Your task to perform on an android device: turn on javascript in the chrome app Image 0: 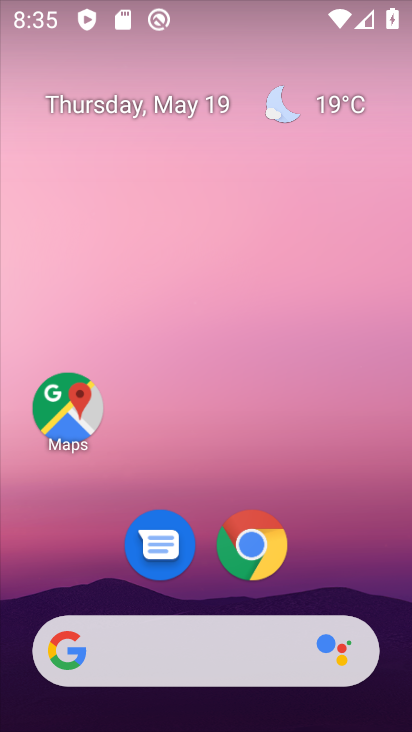
Step 0: click (269, 530)
Your task to perform on an android device: turn on javascript in the chrome app Image 1: 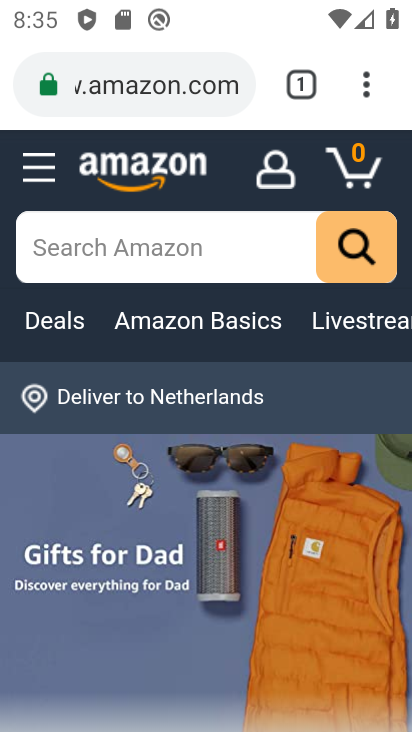
Step 1: click (365, 105)
Your task to perform on an android device: turn on javascript in the chrome app Image 2: 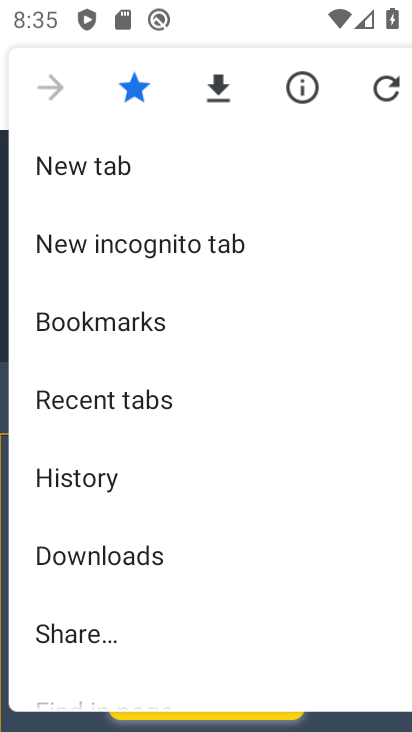
Step 2: drag from (158, 595) to (182, 381)
Your task to perform on an android device: turn on javascript in the chrome app Image 3: 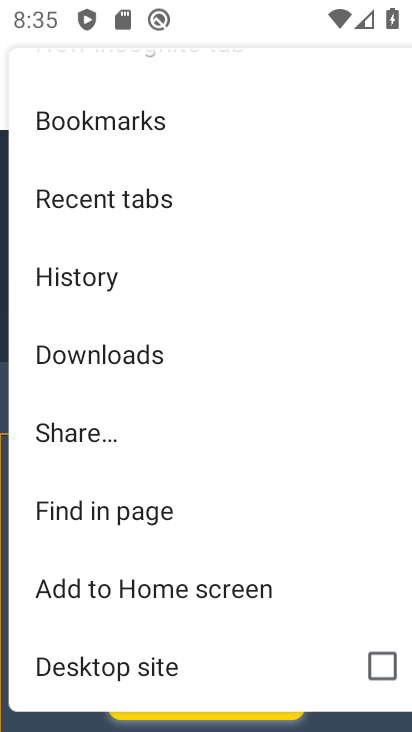
Step 3: drag from (142, 625) to (151, 391)
Your task to perform on an android device: turn on javascript in the chrome app Image 4: 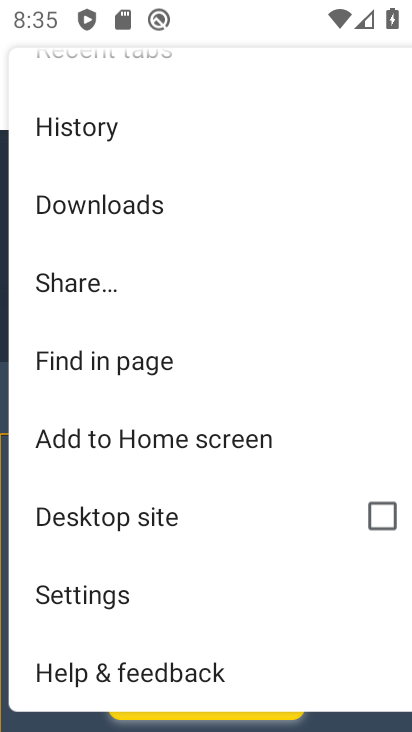
Step 4: click (126, 574)
Your task to perform on an android device: turn on javascript in the chrome app Image 5: 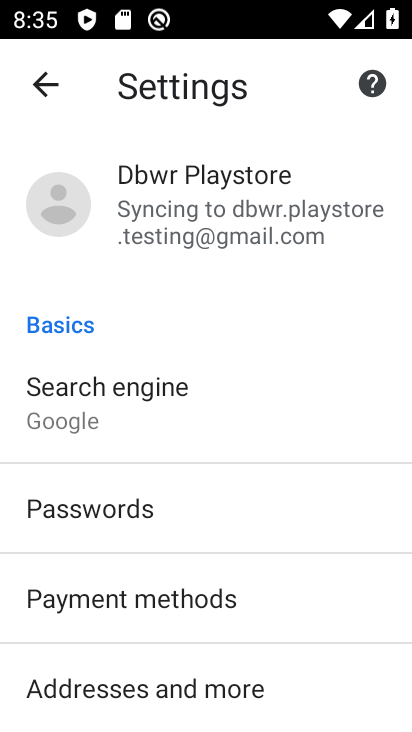
Step 5: drag from (126, 574) to (218, 238)
Your task to perform on an android device: turn on javascript in the chrome app Image 6: 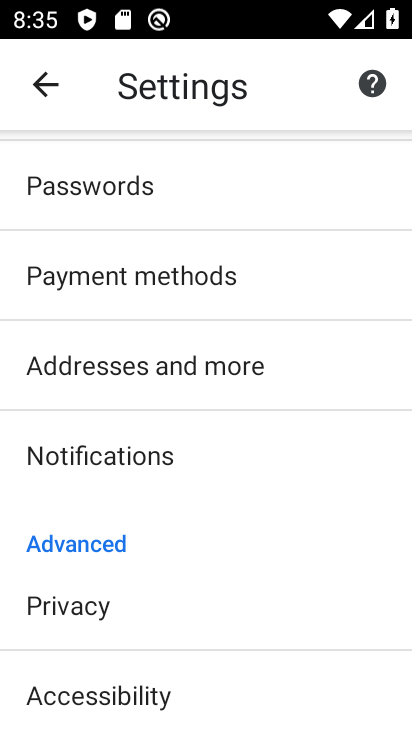
Step 6: drag from (196, 596) to (212, 332)
Your task to perform on an android device: turn on javascript in the chrome app Image 7: 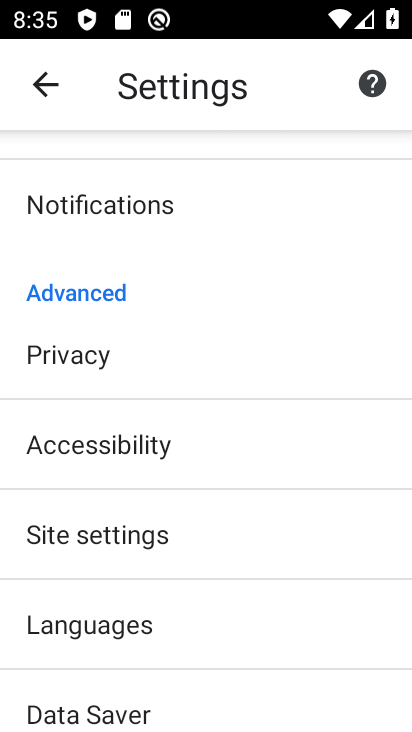
Step 7: click (210, 504)
Your task to perform on an android device: turn on javascript in the chrome app Image 8: 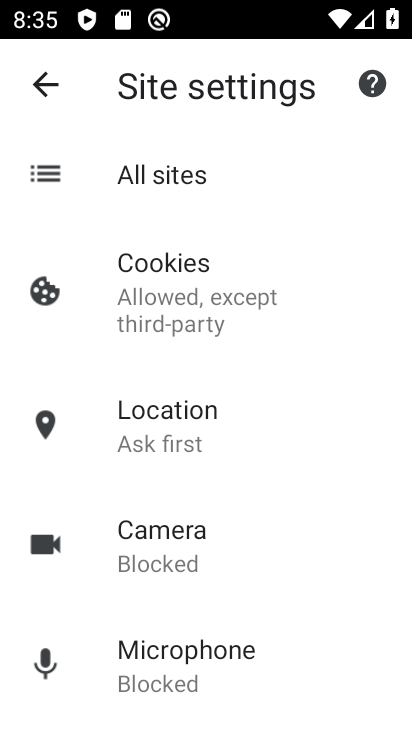
Step 8: drag from (254, 707) to (240, 426)
Your task to perform on an android device: turn on javascript in the chrome app Image 9: 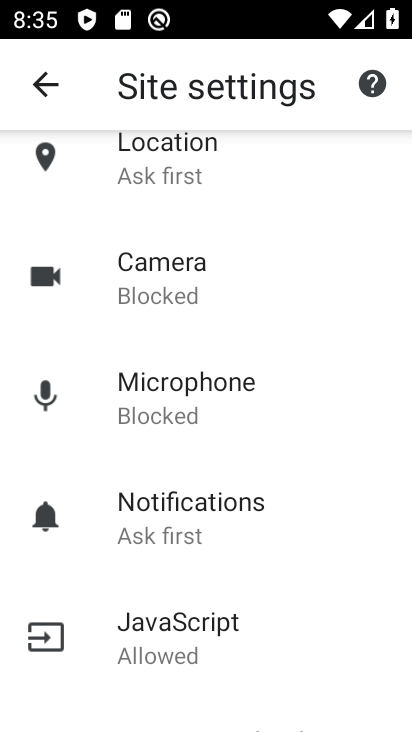
Step 9: click (227, 608)
Your task to perform on an android device: turn on javascript in the chrome app Image 10: 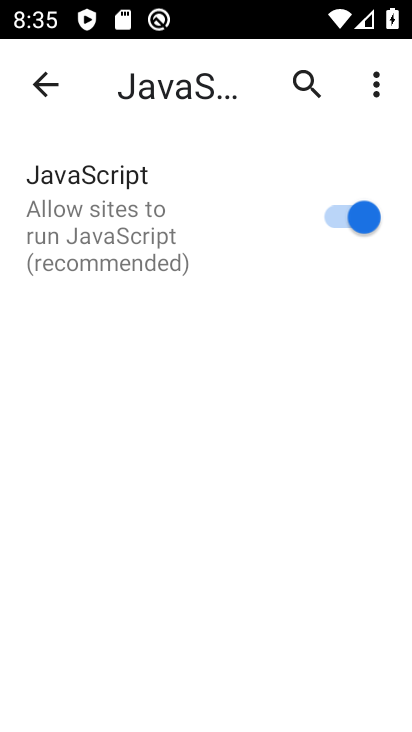
Step 10: click (357, 243)
Your task to perform on an android device: turn on javascript in the chrome app Image 11: 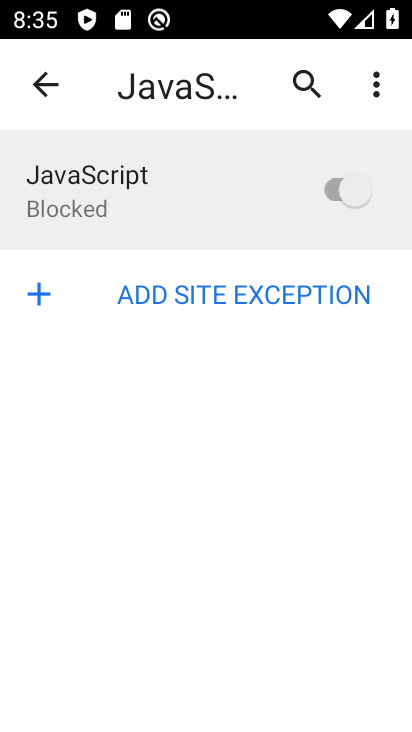
Step 11: click (357, 243)
Your task to perform on an android device: turn on javascript in the chrome app Image 12: 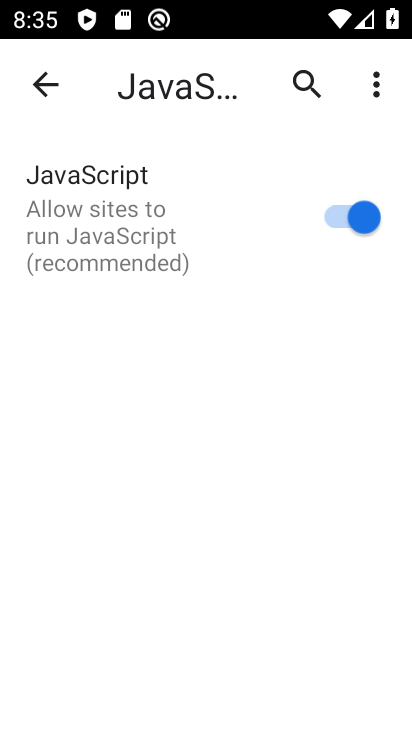
Step 12: task complete